Your task to perform on an android device: What's the weather like in Beijing? Image 0: 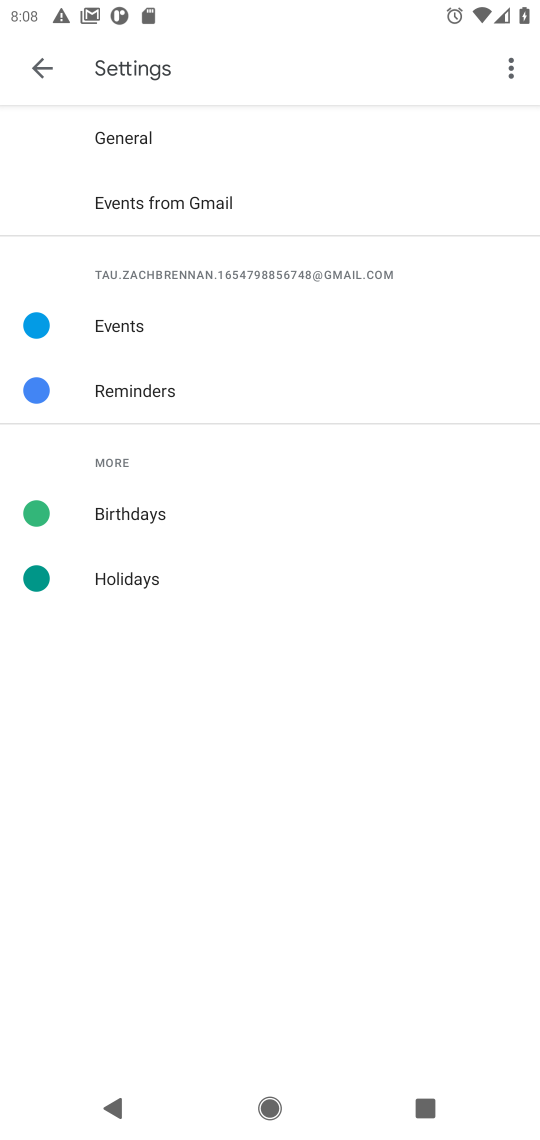
Step 0: press home button
Your task to perform on an android device: What's the weather like in Beijing? Image 1: 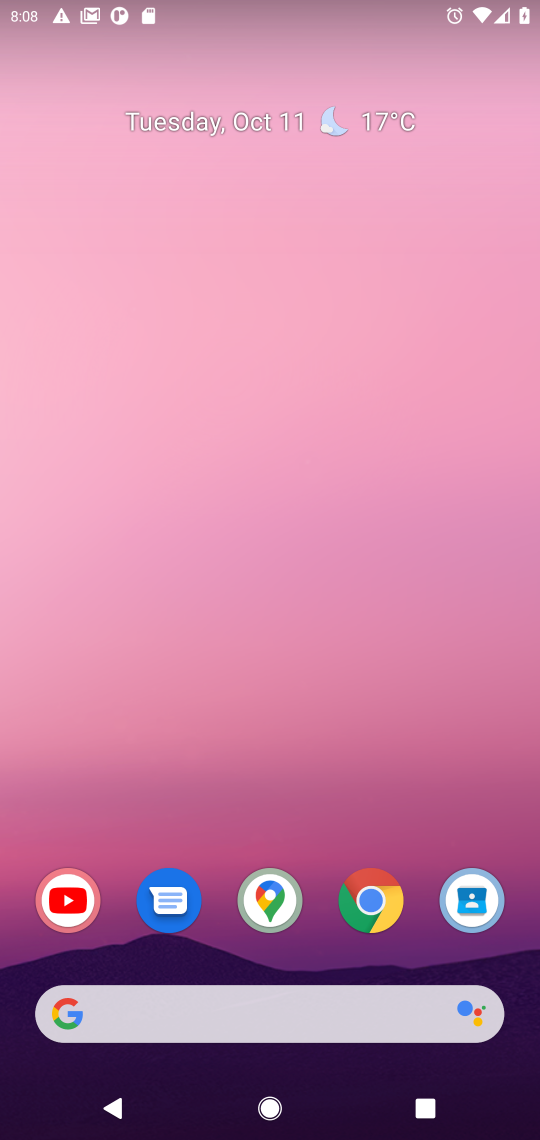
Step 1: click (367, 903)
Your task to perform on an android device: What's the weather like in Beijing? Image 2: 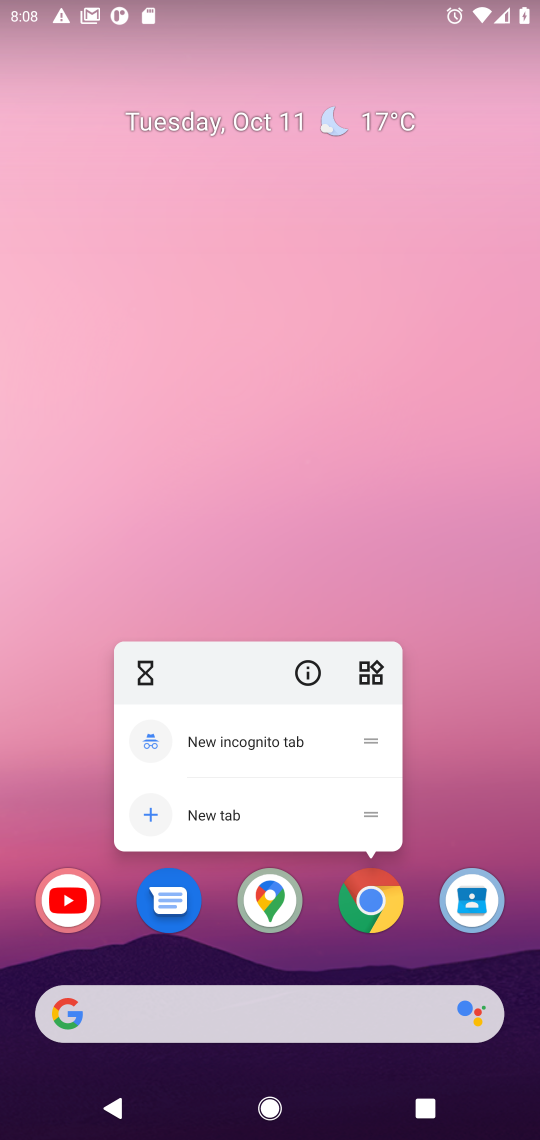
Step 2: click (373, 898)
Your task to perform on an android device: What's the weather like in Beijing? Image 3: 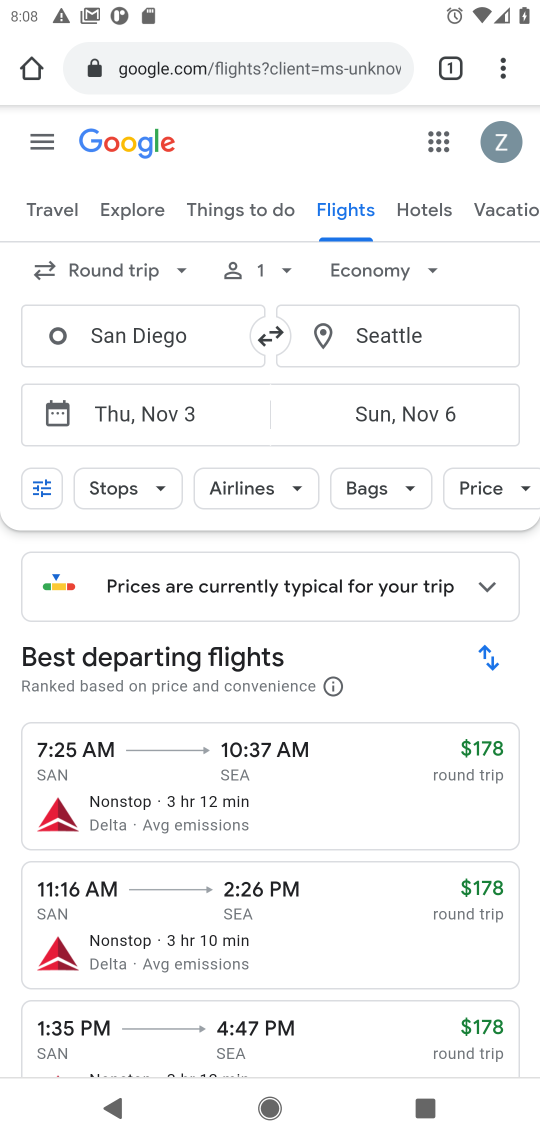
Step 3: click (277, 62)
Your task to perform on an android device: What's the weather like in Beijing? Image 4: 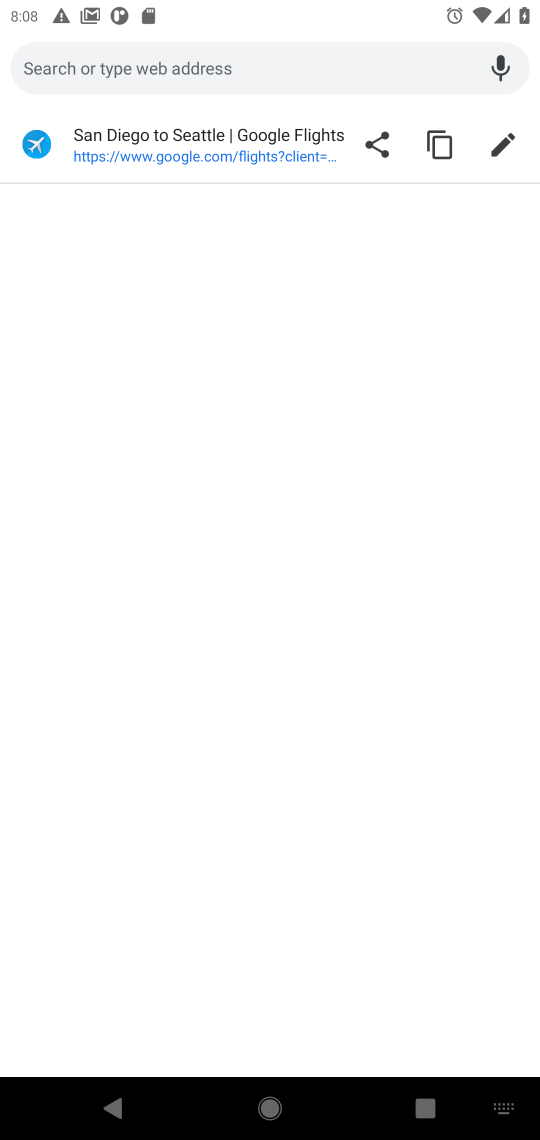
Step 4: type "weather like in Beijing"
Your task to perform on an android device: What's the weather like in Beijing? Image 5: 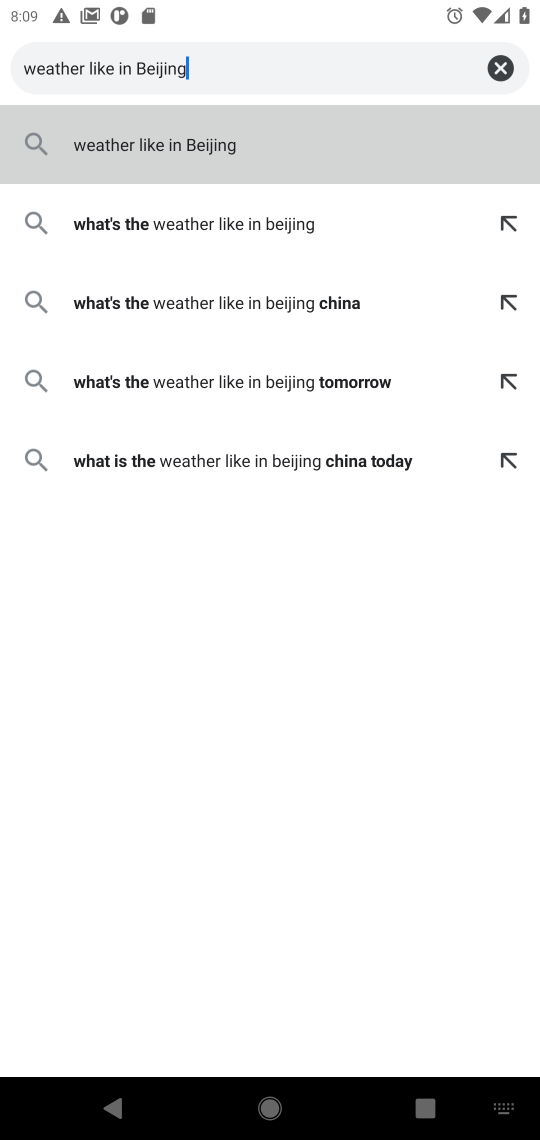
Step 5: press enter
Your task to perform on an android device: What's the weather like in Beijing? Image 6: 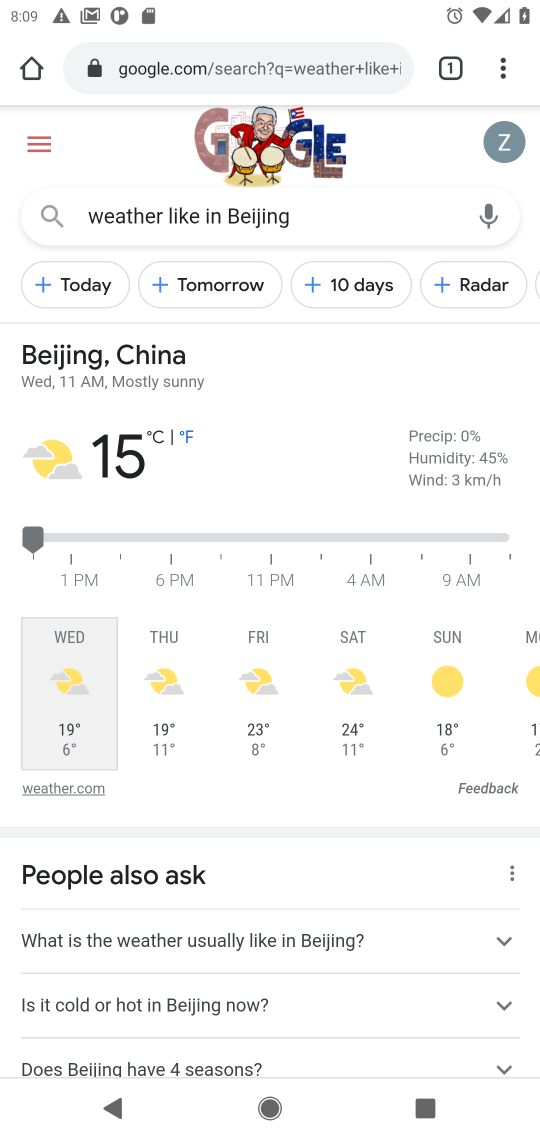
Step 6: task complete